Your task to perform on an android device: Go to ESPN.com Image 0: 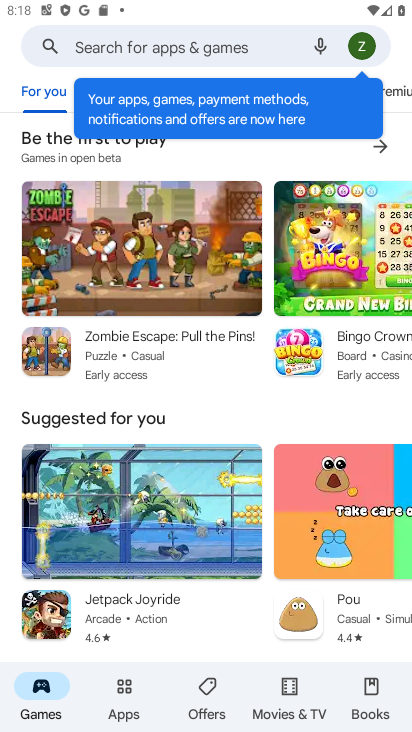
Step 0: press home button
Your task to perform on an android device: Go to ESPN.com Image 1: 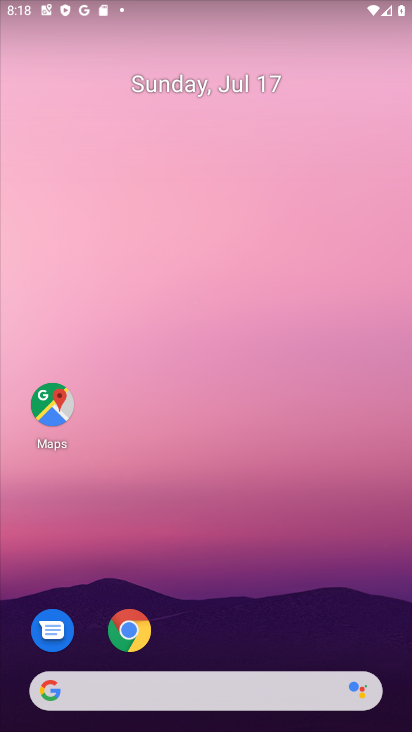
Step 1: click (128, 634)
Your task to perform on an android device: Go to ESPN.com Image 2: 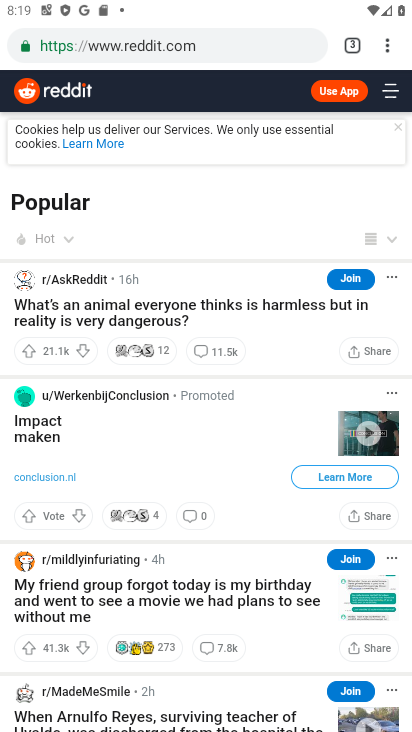
Step 2: click (186, 46)
Your task to perform on an android device: Go to ESPN.com Image 3: 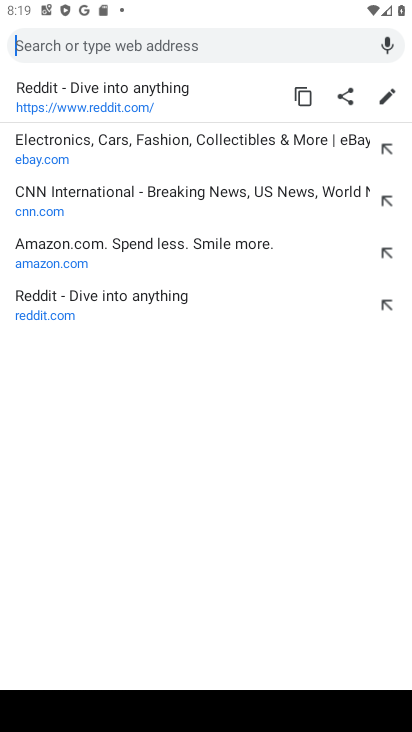
Step 3: type "www.espn.com"
Your task to perform on an android device: Go to ESPN.com Image 4: 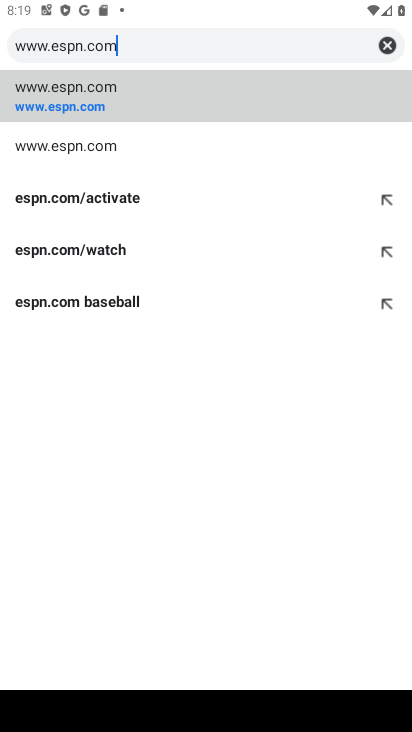
Step 4: click (31, 103)
Your task to perform on an android device: Go to ESPN.com Image 5: 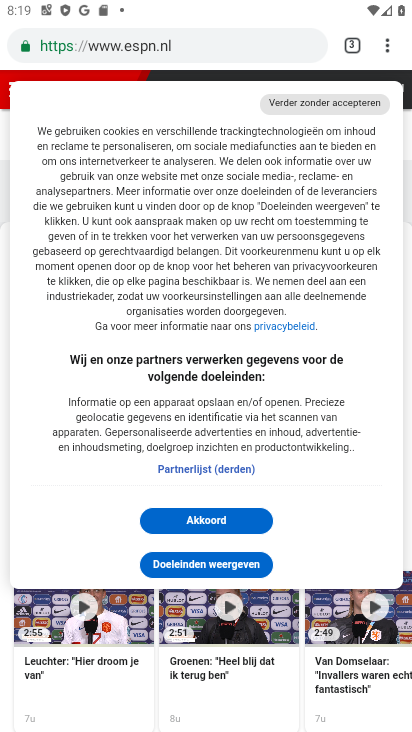
Step 5: task complete